Your task to perform on an android device: Open the Play Movies app and select the watchlist tab. Image 0: 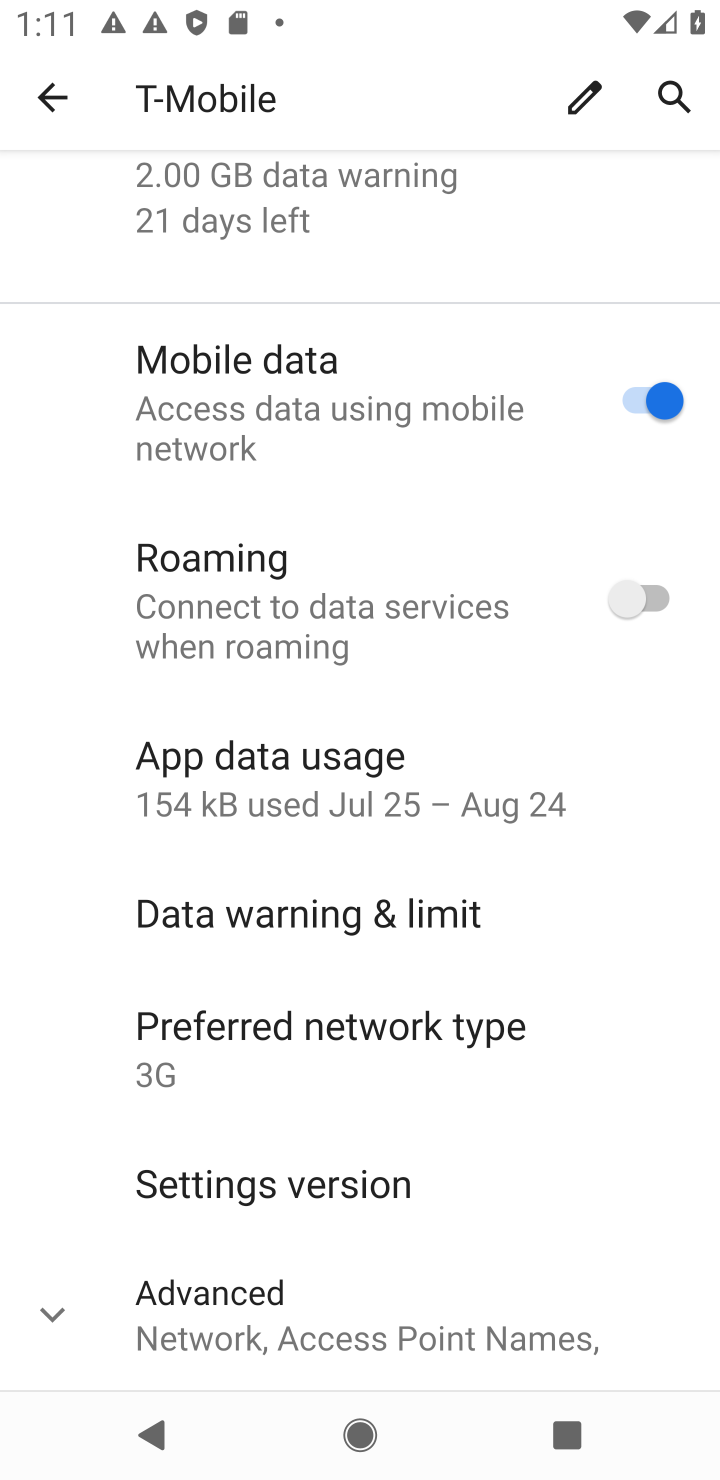
Step 0: press home button
Your task to perform on an android device: Open the Play Movies app and select the watchlist tab. Image 1: 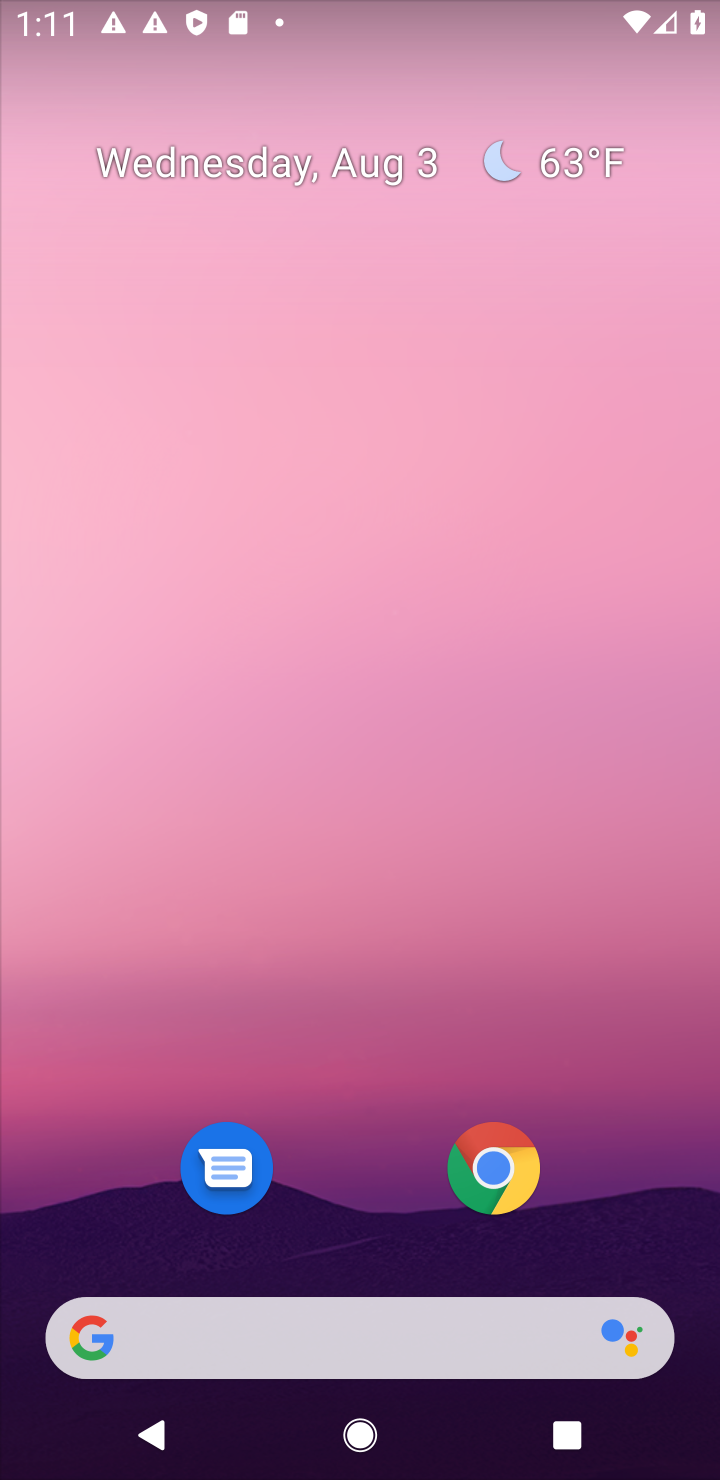
Step 1: drag from (681, 1220) to (625, 110)
Your task to perform on an android device: Open the Play Movies app and select the watchlist tab. Image 2: 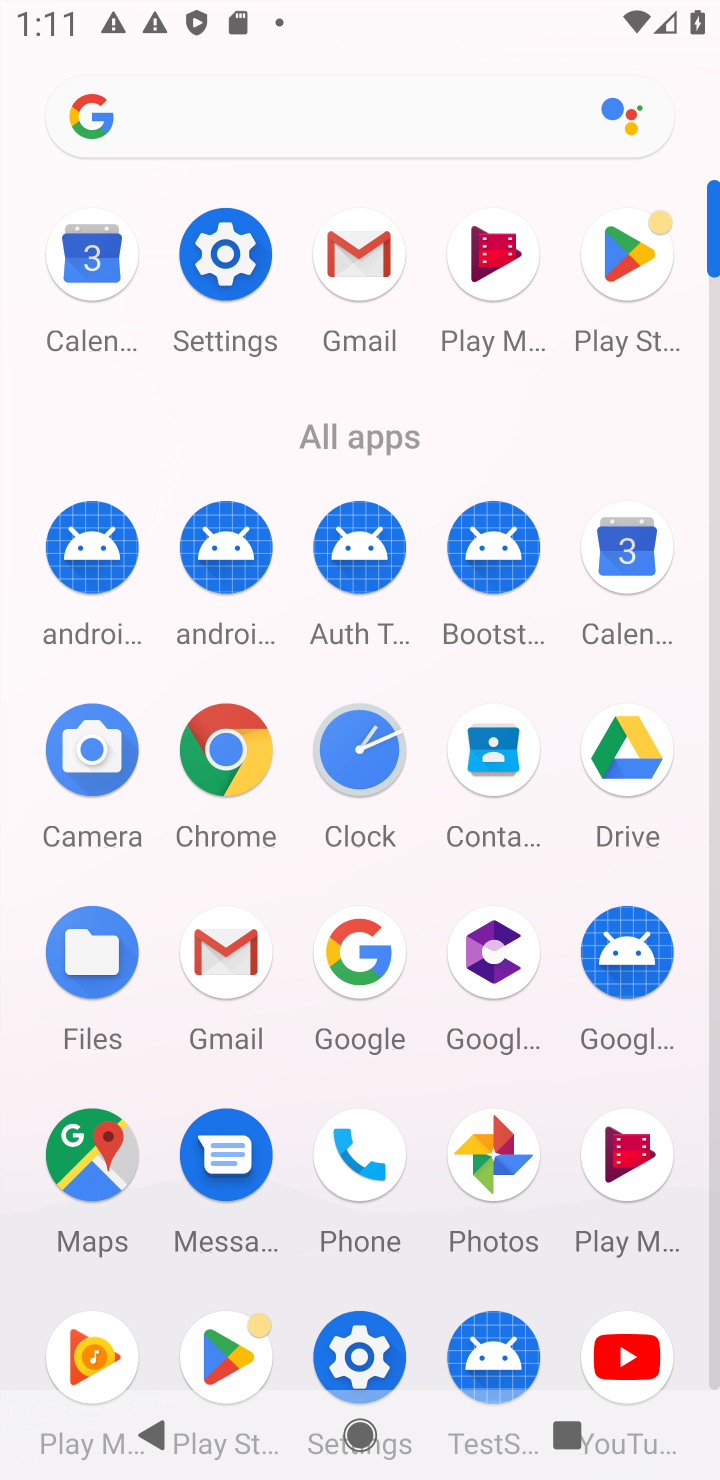
Step 2: click (628, 1162)
Your task to perform on an android device: Open the Play Movies app and select the watchlist tab. Image 3: 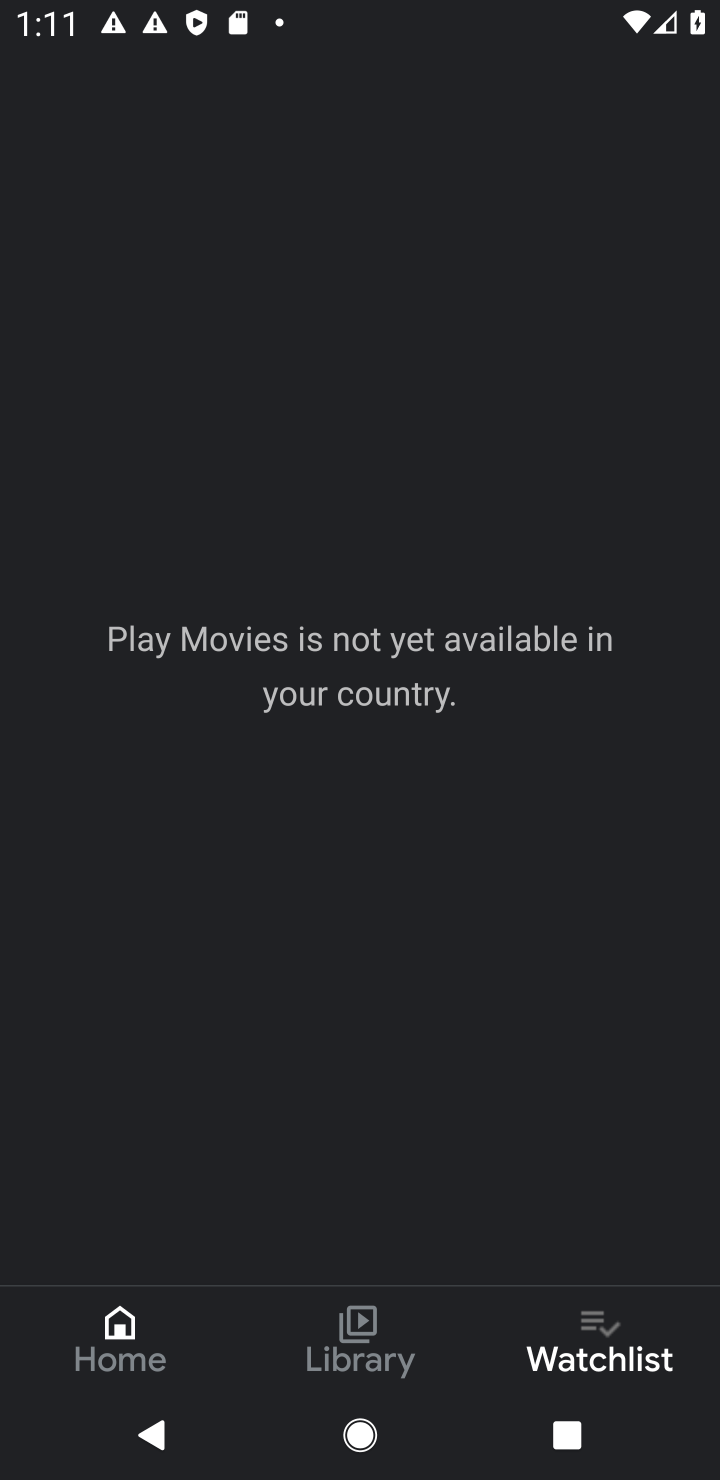
Step 3: click (586, 1340)
Your task to perform on an android device: Open the Play Movies app and select the watchlist tab. Image 4: 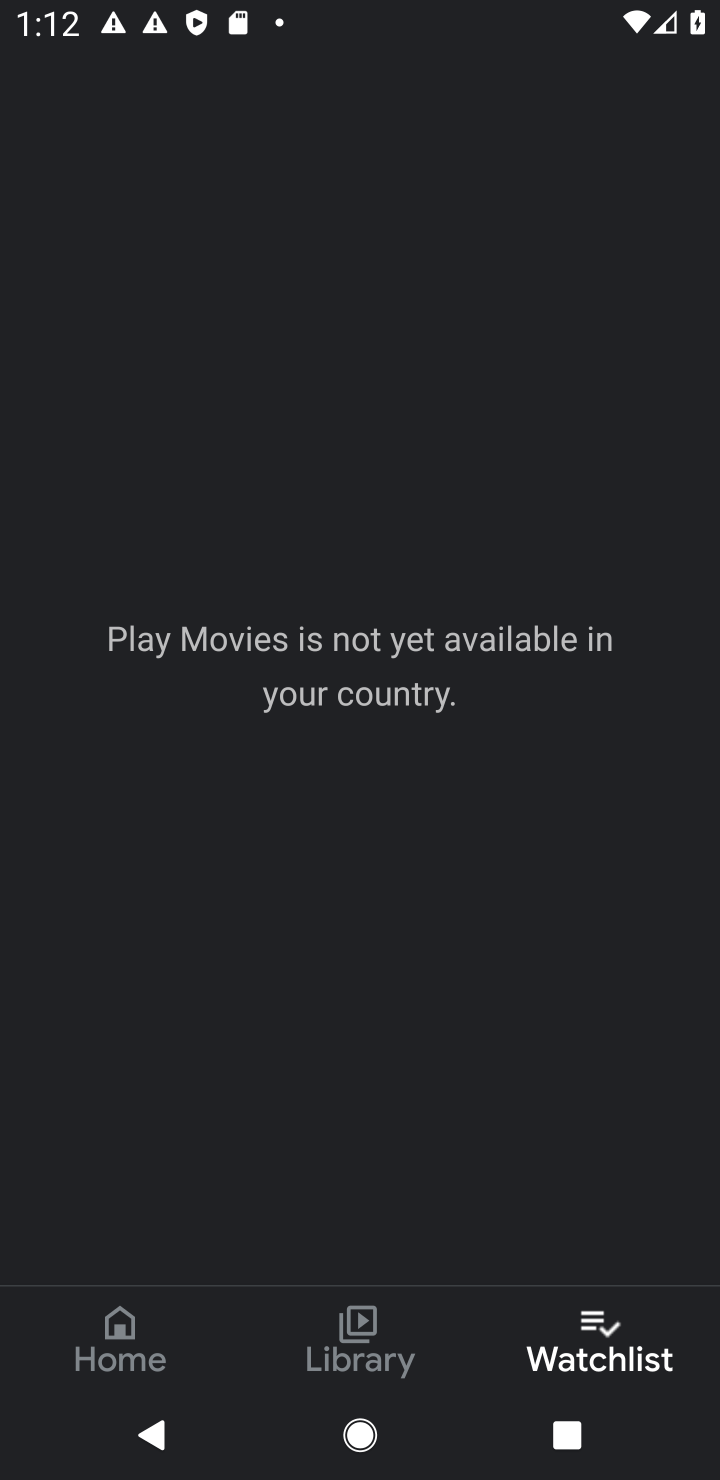
Step 4: task complete